Your task to perform on an android device: delete browsing data in the chrome app Image 0: 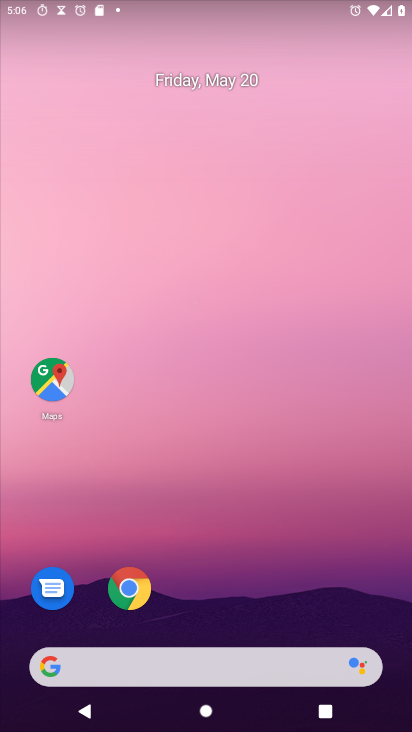
Step 0: drag from (214, 588) to (192, 99)
Your task to perform on an android device: delete browsing data in the chrome app Image 1: 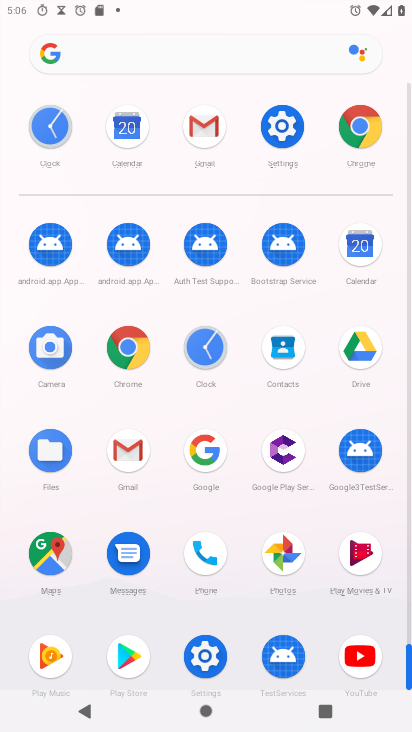
Step 1: click (129, 345)
Your task to perform on an android device: delete browsing data in the chrome app Image 2: 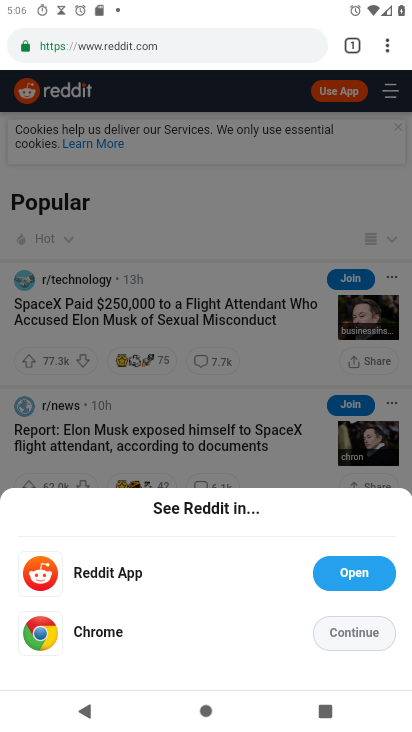
Step 2: drag from (382, 36) to (211, 545)
Your task to perform on an android device: delete browsing data in the chrome app Image 3: 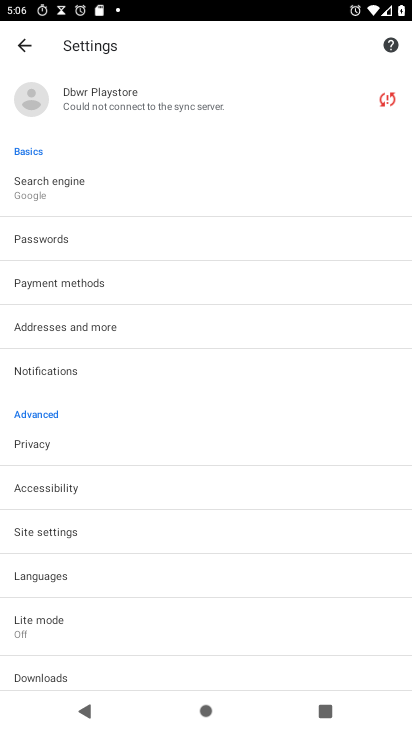
Step 3: click (33, 444)
Your task to perform on an android device: delete browsing data in the chrome app Image 4: 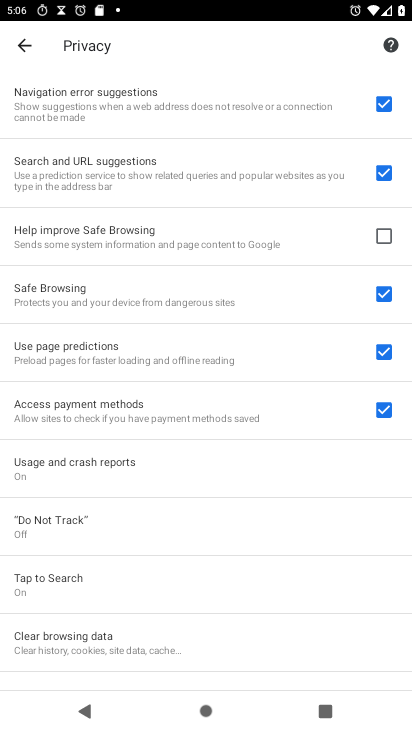
Step 4: drag from (229, 644) to (235, 205)
Your task to perform on an android device: delete browsing data in the chrome app Image 5: 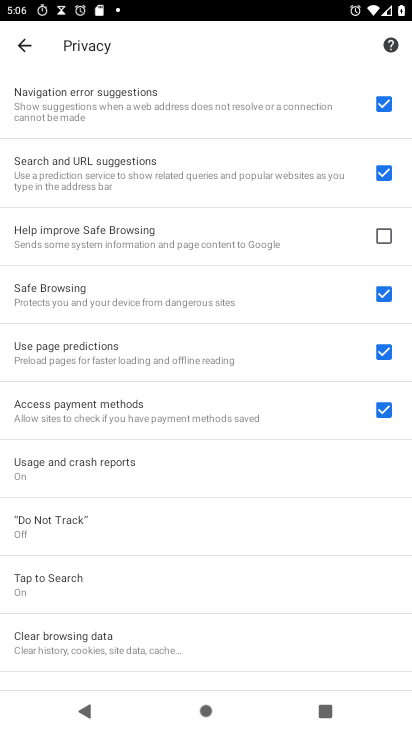
Step 5: click (80, 641)
Your task to perform on an android device: delete browsing data in the chrome app Image 6: 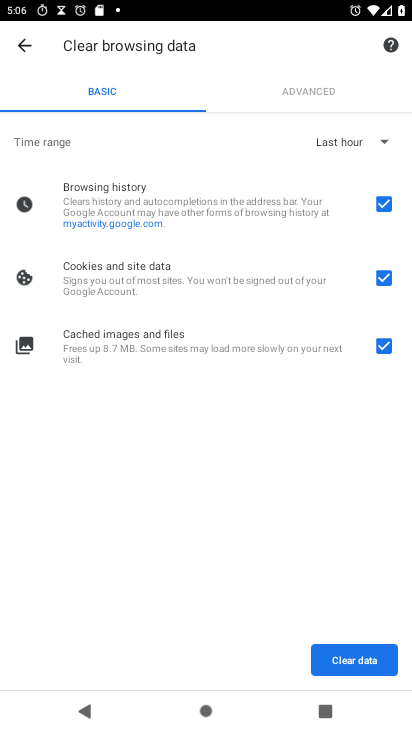
Step 6: click (364, 649)
Your task to perform on an android device: delete browsing data in the chrome app Image 7: 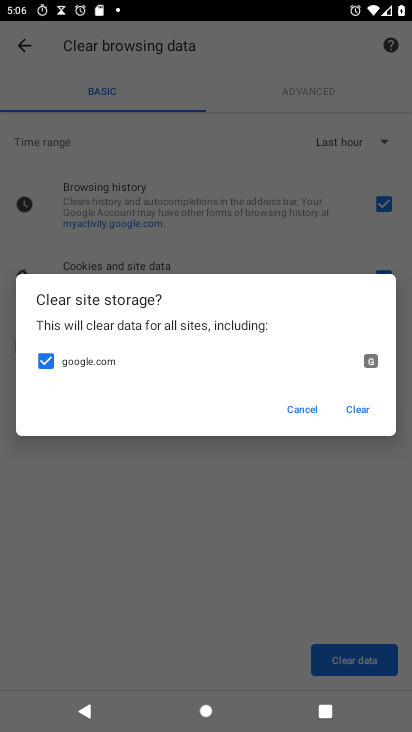
Step 7: click (304, 402)
Your task to perform on an android device: delete browsing data in the chrome app Image 8: 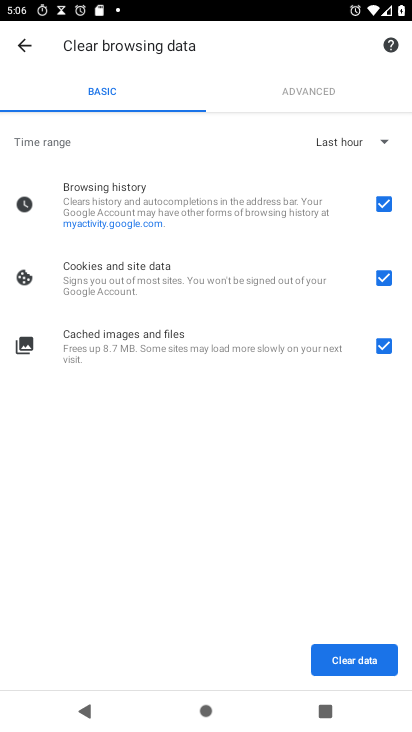
Step 8: task complete